Your task to perform on an android device: turn smart compose on in the gmail app Image 0: 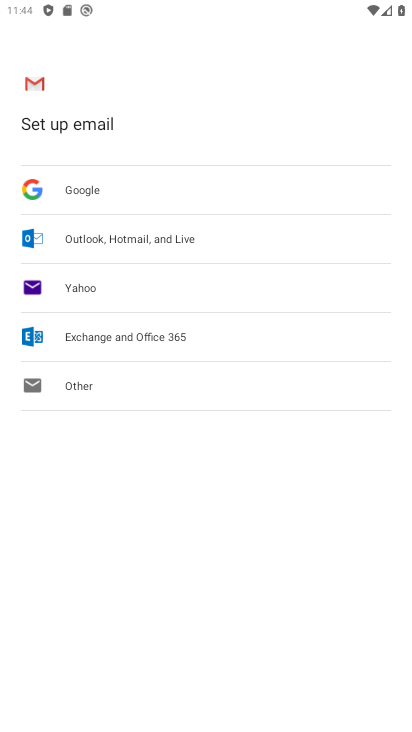
Step 0: press home button
Your task to perform on an android device: turn smart compose on in the gmail app Image 1: 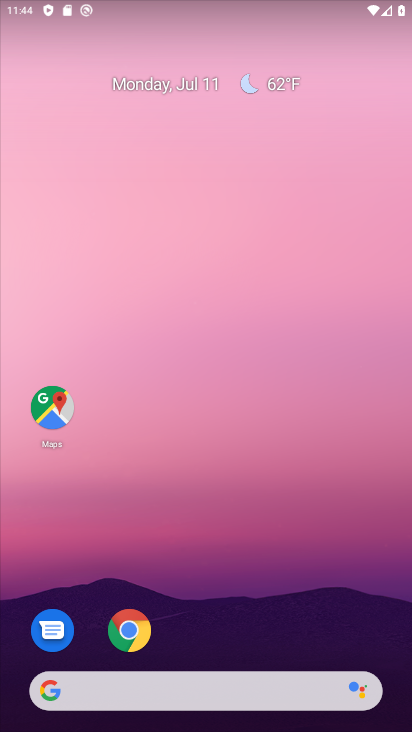
Step 1: drag from (234, 651) to (222, 180)
Your task to perform on an android device: turn smart compose on in the gmail app Image 2: 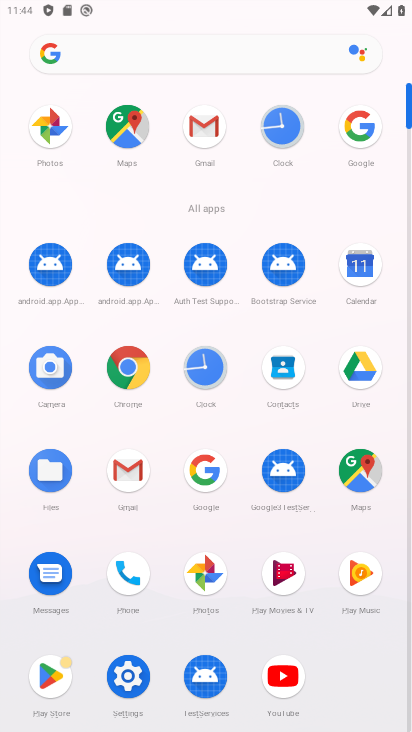
Step 2: click (202, 121)
Your task to perform on an android device: turn smart compose on in the gmail app Image 3: 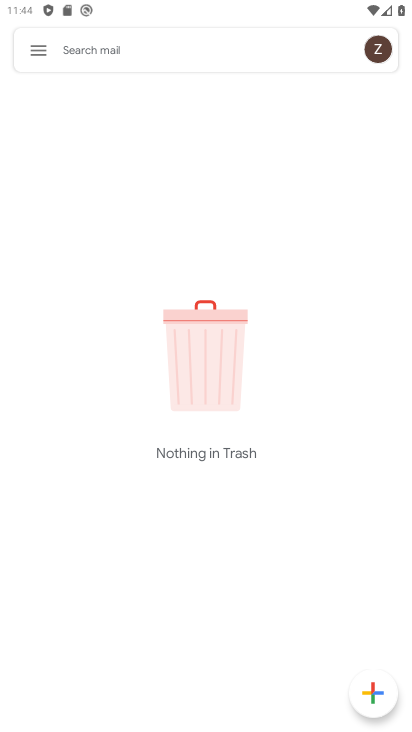
Step 3: click (30, 52)
Your task to perform on an android device: turn smart compose on in the gmail app Image 4: 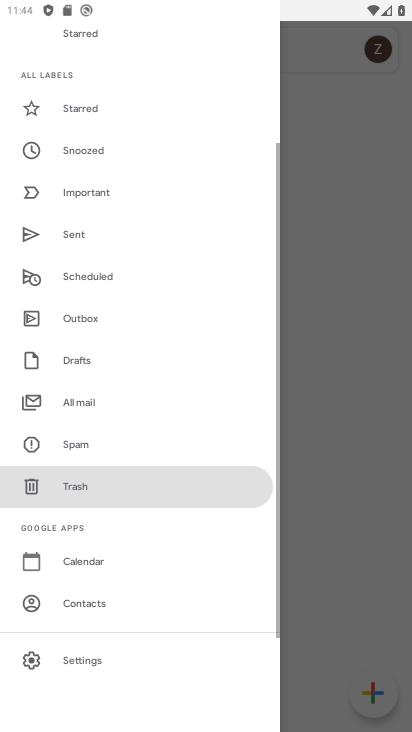
Step 4: click (112, 662)
Your task to perform on an android device: turn smart compose on in the gmail app Image 5: 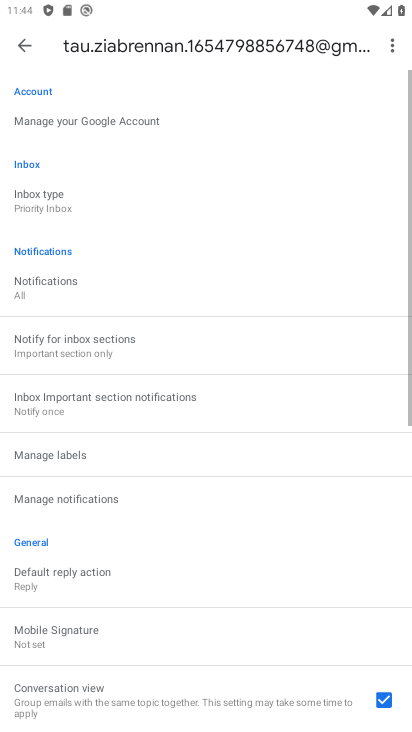
Step 5: task complete